Your task to perform on an android device: What is the capital of Sweden? Image 0: 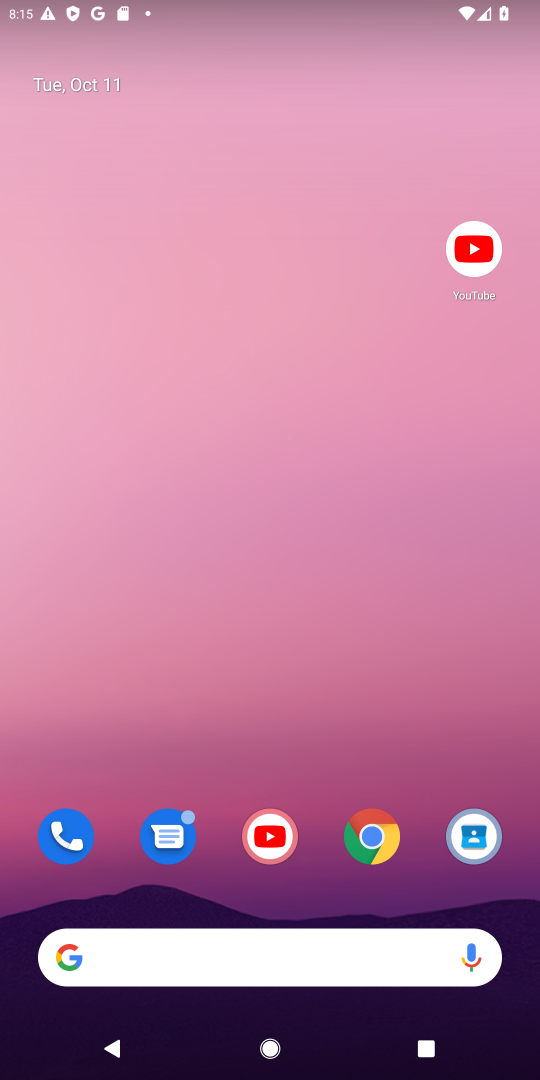
Step 0: click (378, 837)
Your task to perform on an android device: What is the capital of Sweden? Image 1: 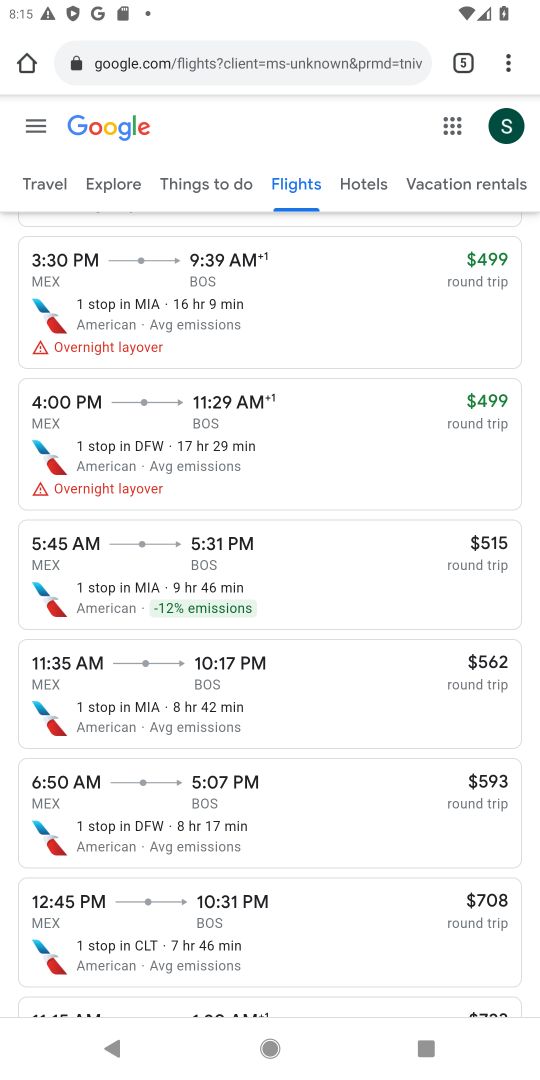
Step 1: click (230, 64)
Your task to perform on an android device: What is the capital of Sweden? Image 2: 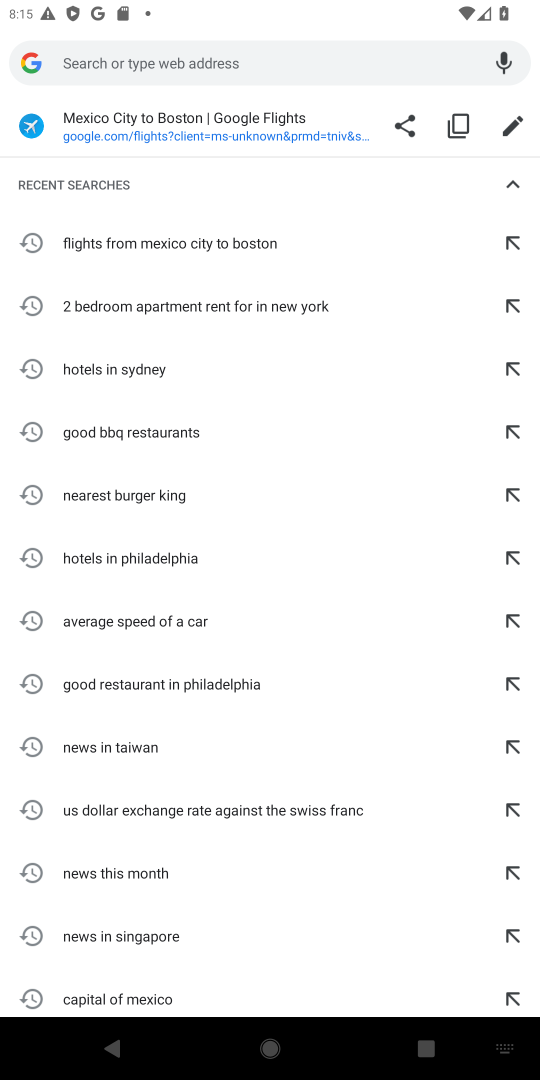
Step 2: type "capital of Sweden"
Your task to perform on an android device: What is the capital of Sweden? Image 3: 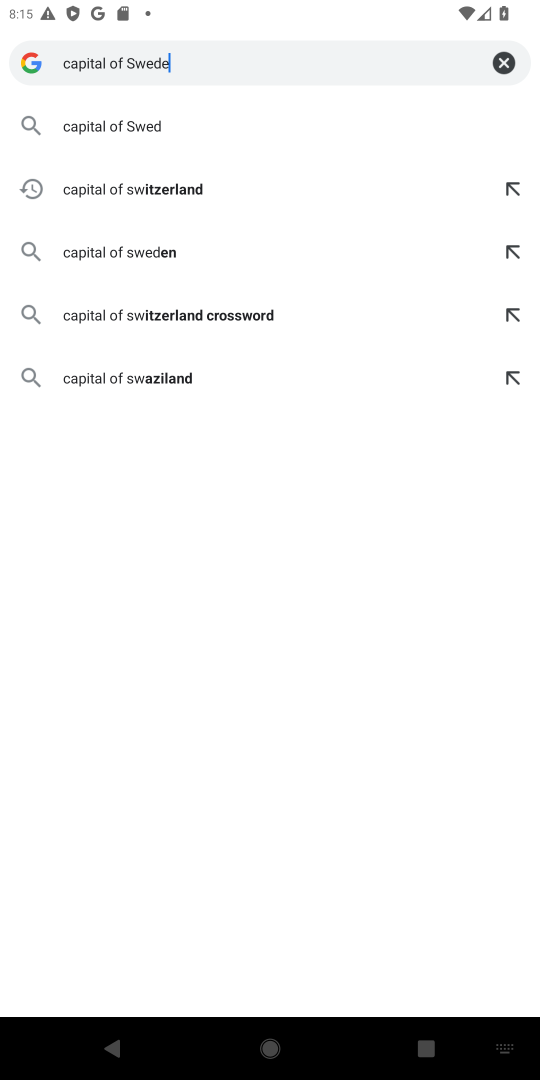
Step 3: press enter
Your task to perform on an android device: What is the capital of Sweden? Image 4: 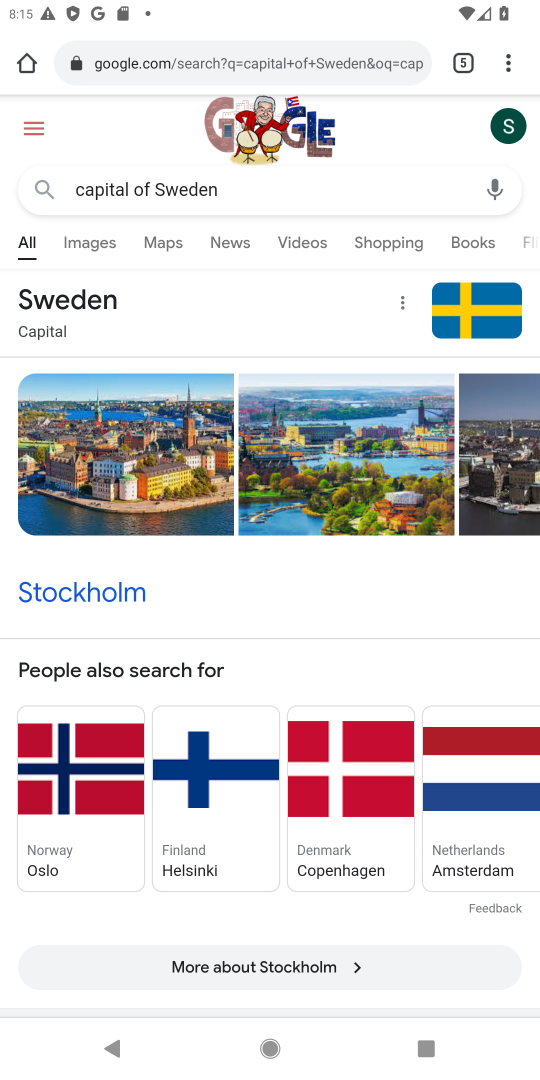
Step 4: task complete